Your task to perform on an android device: turn off sleep mode Image 0: 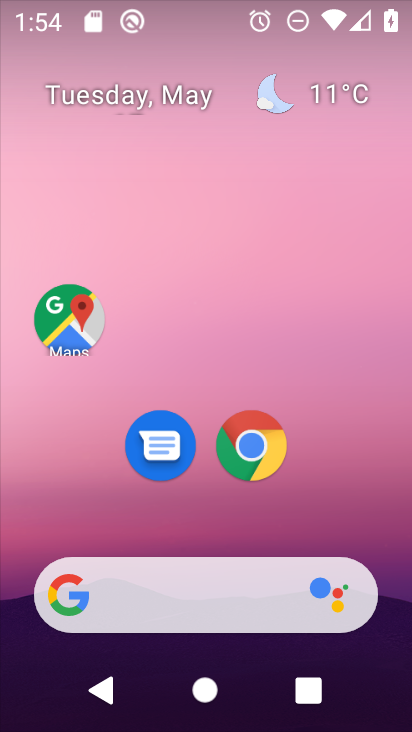
Step 0: drag from (305, 18) to (280, 380)
Your task to perform on an android device: turn off sleep mode Image 1: 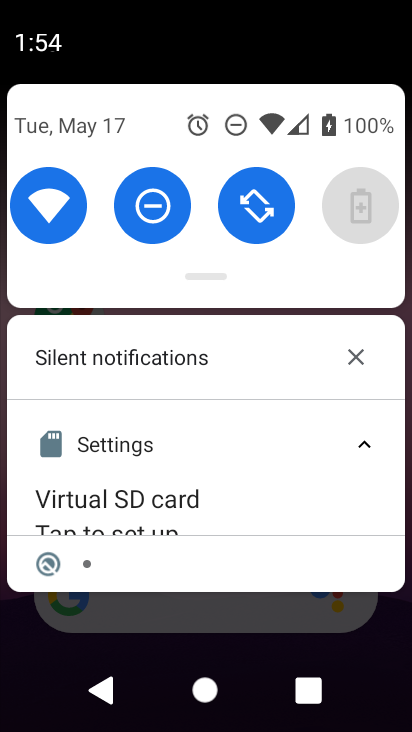
Step 1: drag from (206, 264) to (239, 633)
Your task to perform on an android device: turn off sleep mode Image 2: 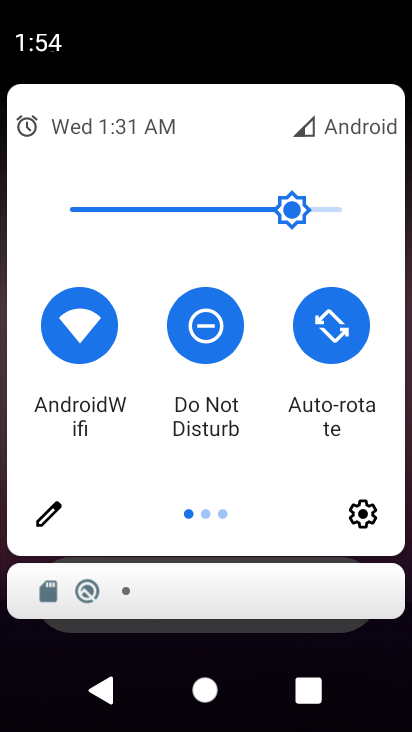
Step 2: drag from (275, 379) to (3, 343)
Your task to perform on an android device: turn off sleep mode Image 3: 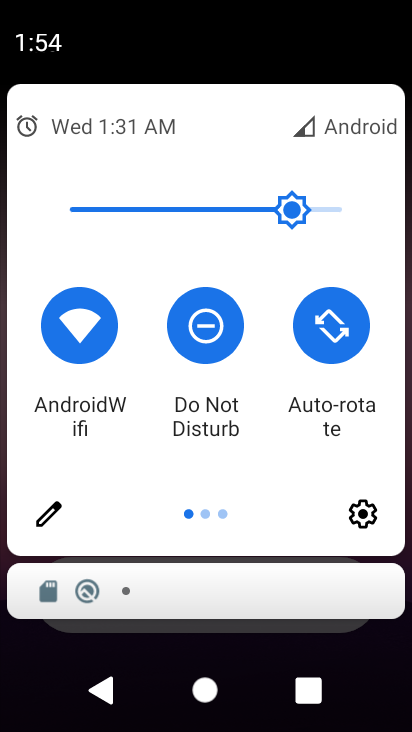
Step 3: drag from (273, 392) to (4, 339)
Your task to perform on an android device: turn off sleep mode Image 4: 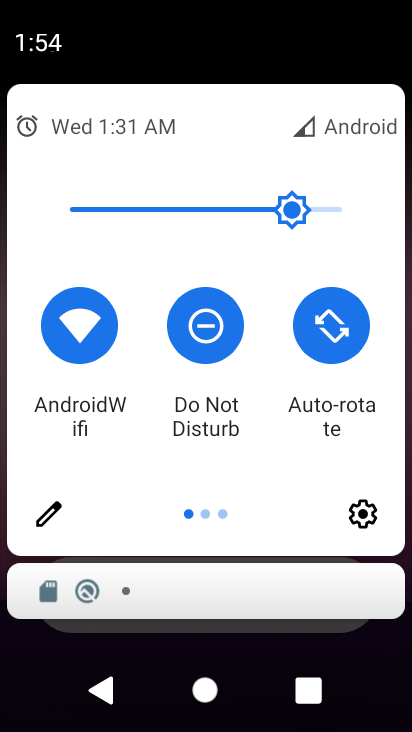
Step 4: drag from (380, 423) to (24, 384)
Your task to perform on an android device: turn off sleep mode Image 5: 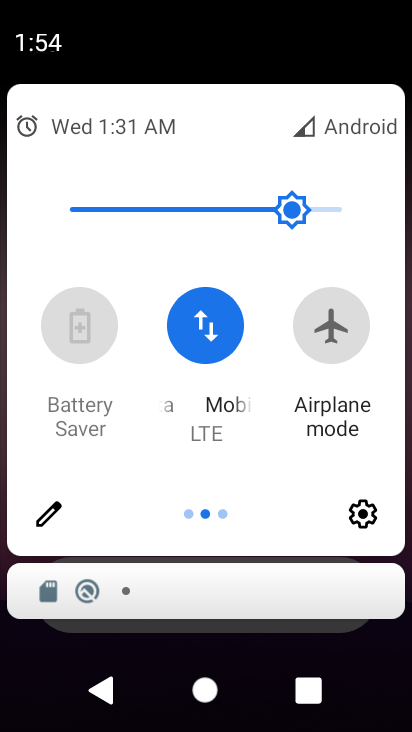
Step 5: drag from (388, 436) to (14, 459)
Your task to perform on an android device: turn off sleep mode Image 6: 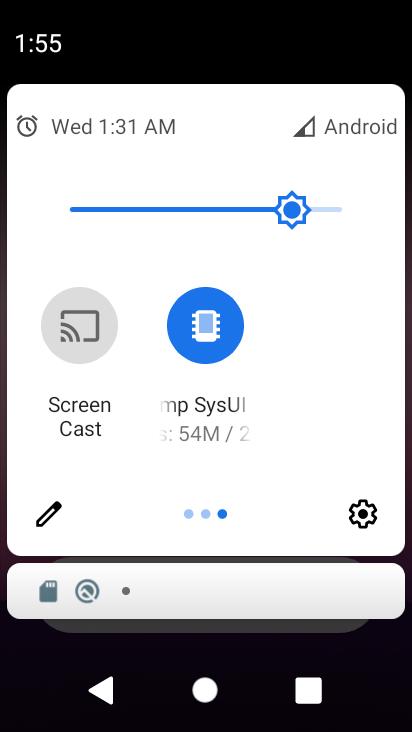
Step 6: click (51, 512)
Your task to perform on an android device: turn off sleep mode Image 7: 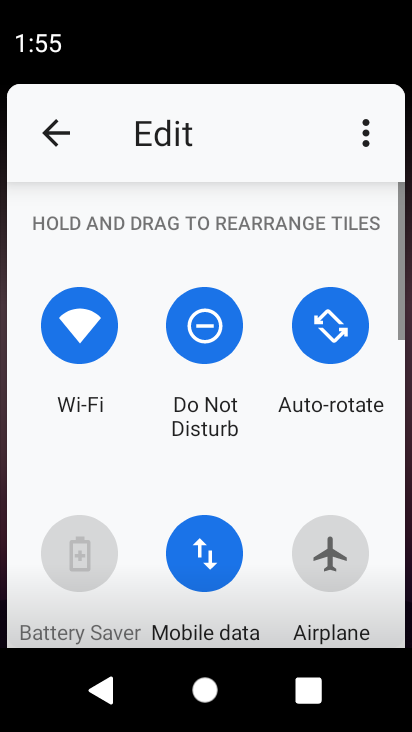
Step 7: task complete